Your task to perform on an android device: Open the web browser Image 0: 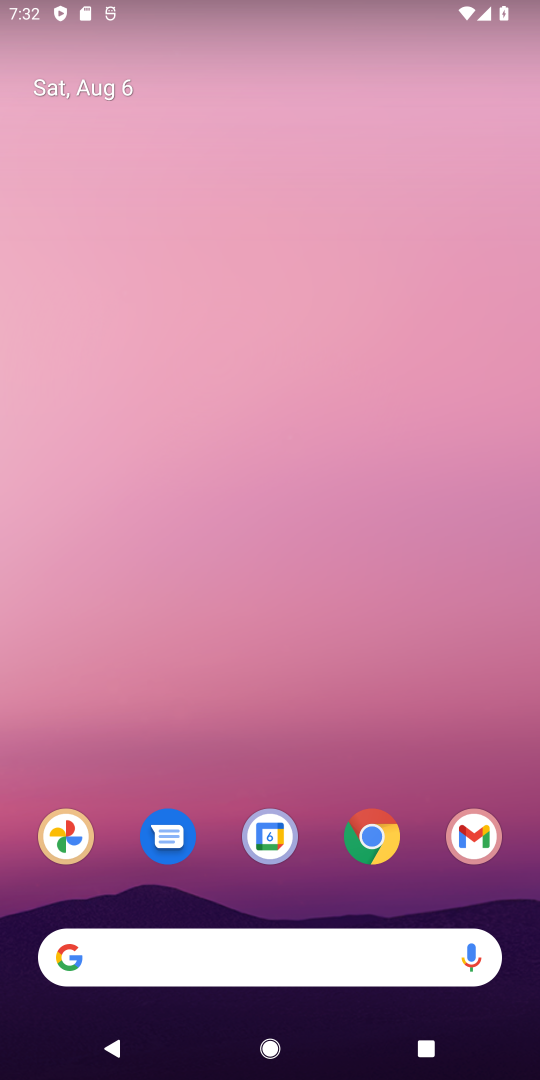
Step 0: click (363, 847)
Your task to perform on an android device: Open the web browser Image 1: 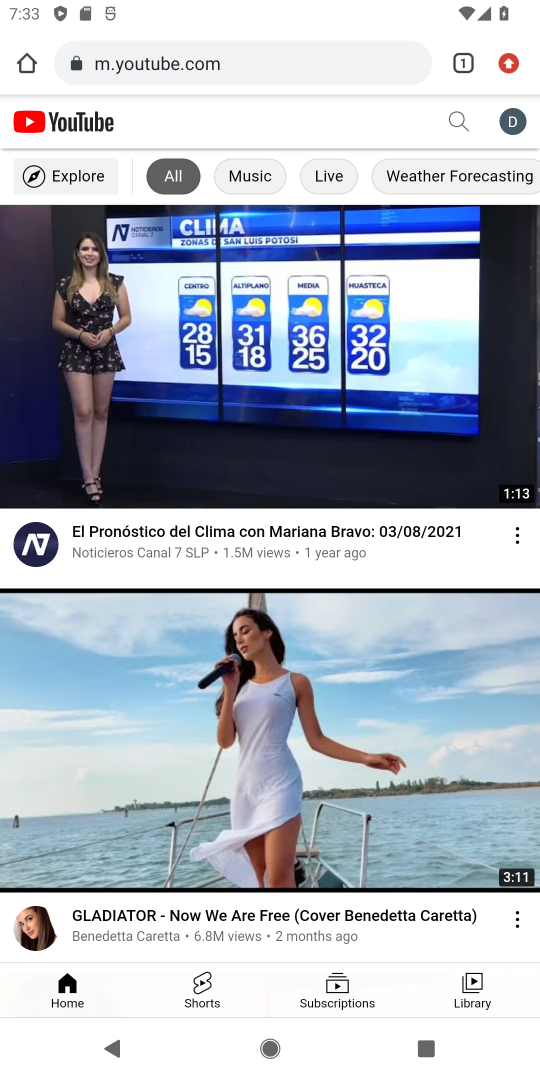
Step 1: click (454, 61)
Your task to perform on an android device: Open the web browser Image 2: 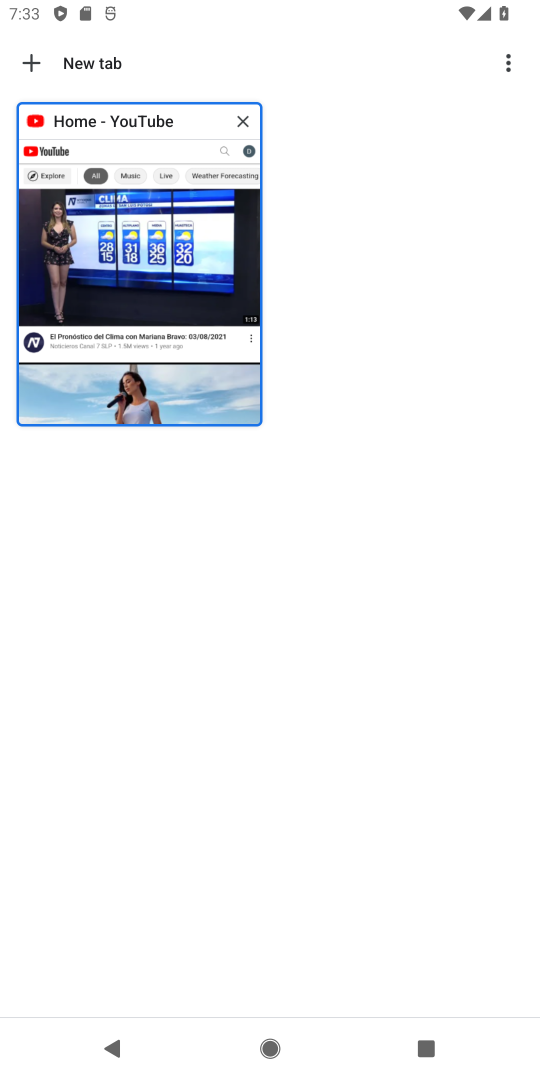
Step 2: click (247, 117)
Your task to perform on an android device: Open the web browser Image 3: 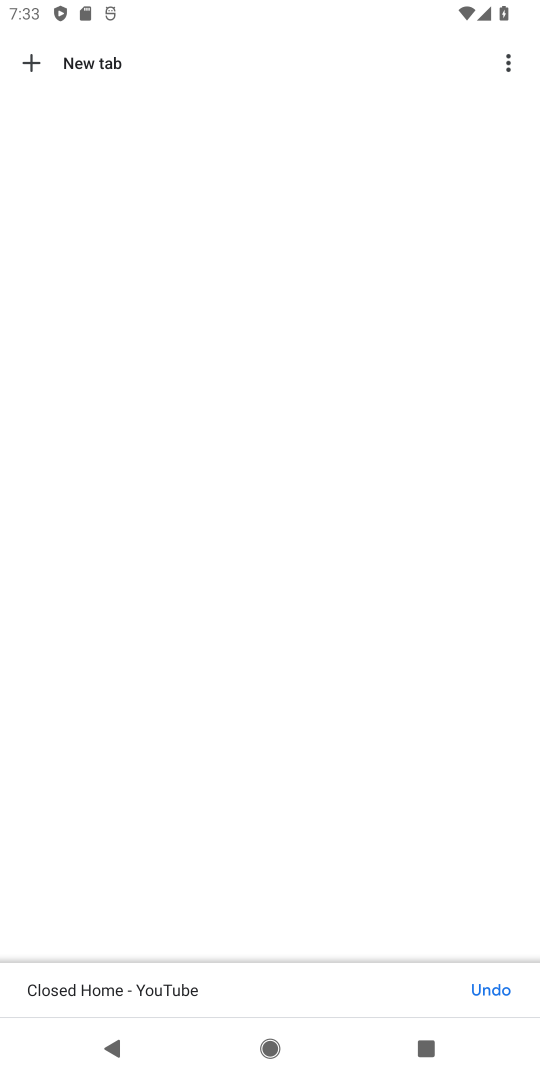
Step 3: click (44, 69)
Your task to perform on an android device: Open the web browser Image 4: 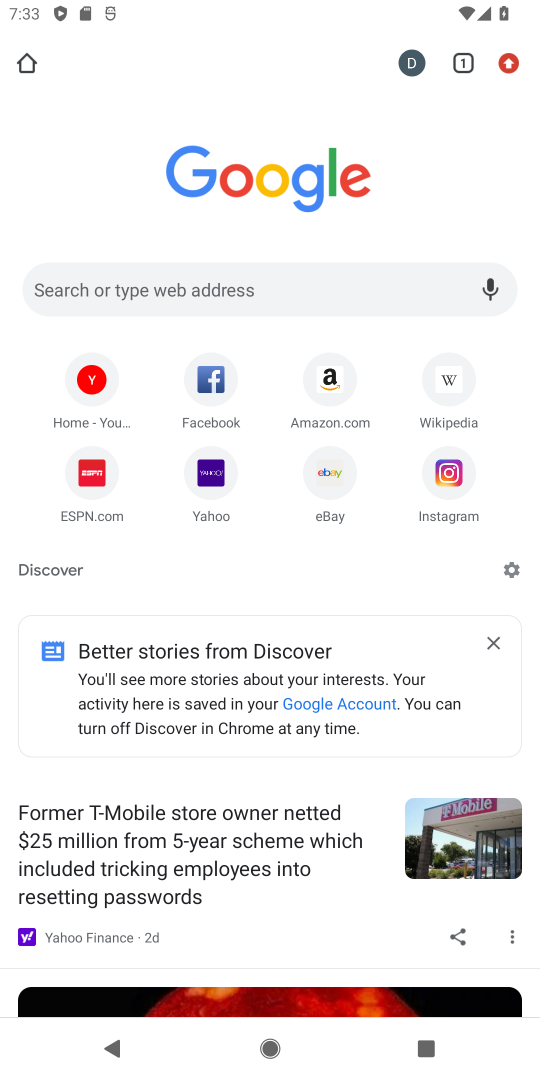
Step 4: task complete